Your task to perform on an android device: open app "Viber Messenger" (install if not already installed), go to login, and select forgot password Image 0: 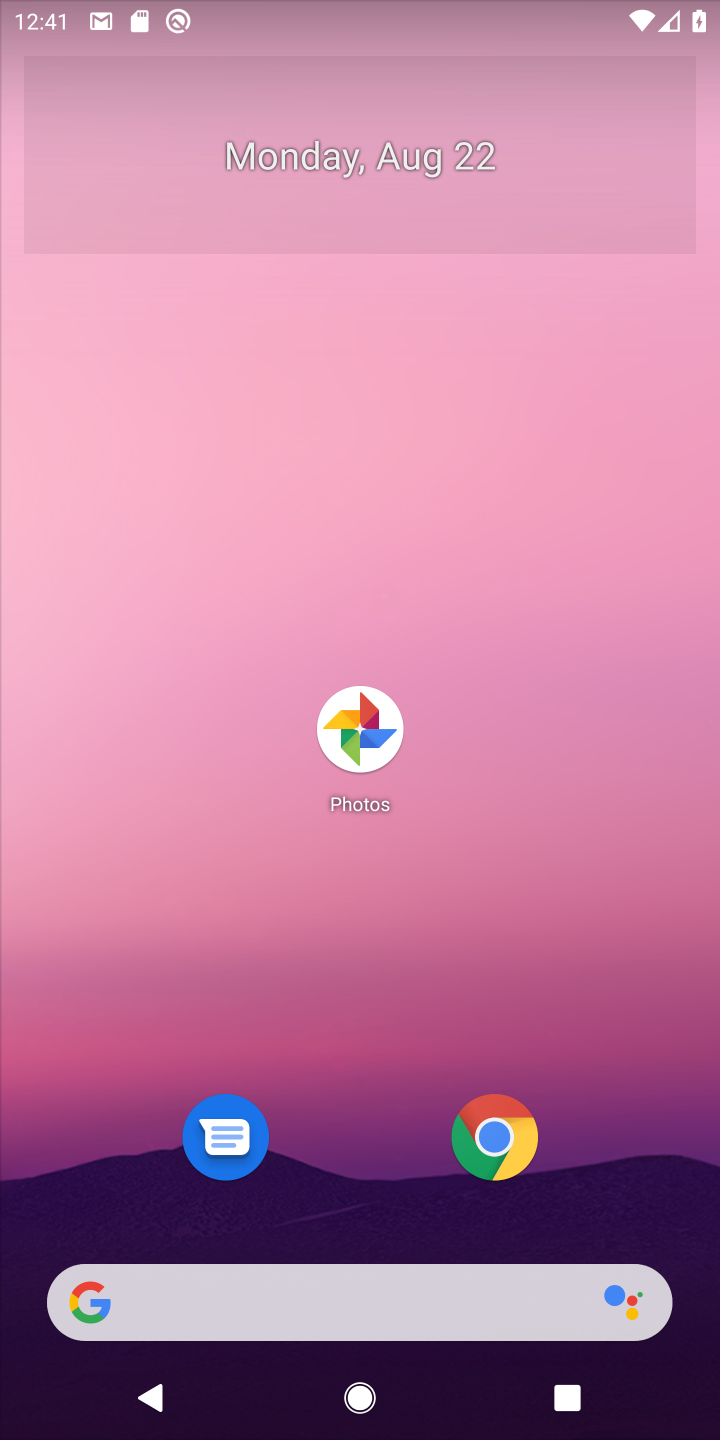
Step 0: drag from (377, 1277) to (461, 41)
Your task to perform on an android device: open app "Viber Messenger" (install if not already installed), go to login, and select forgot password Image 1: 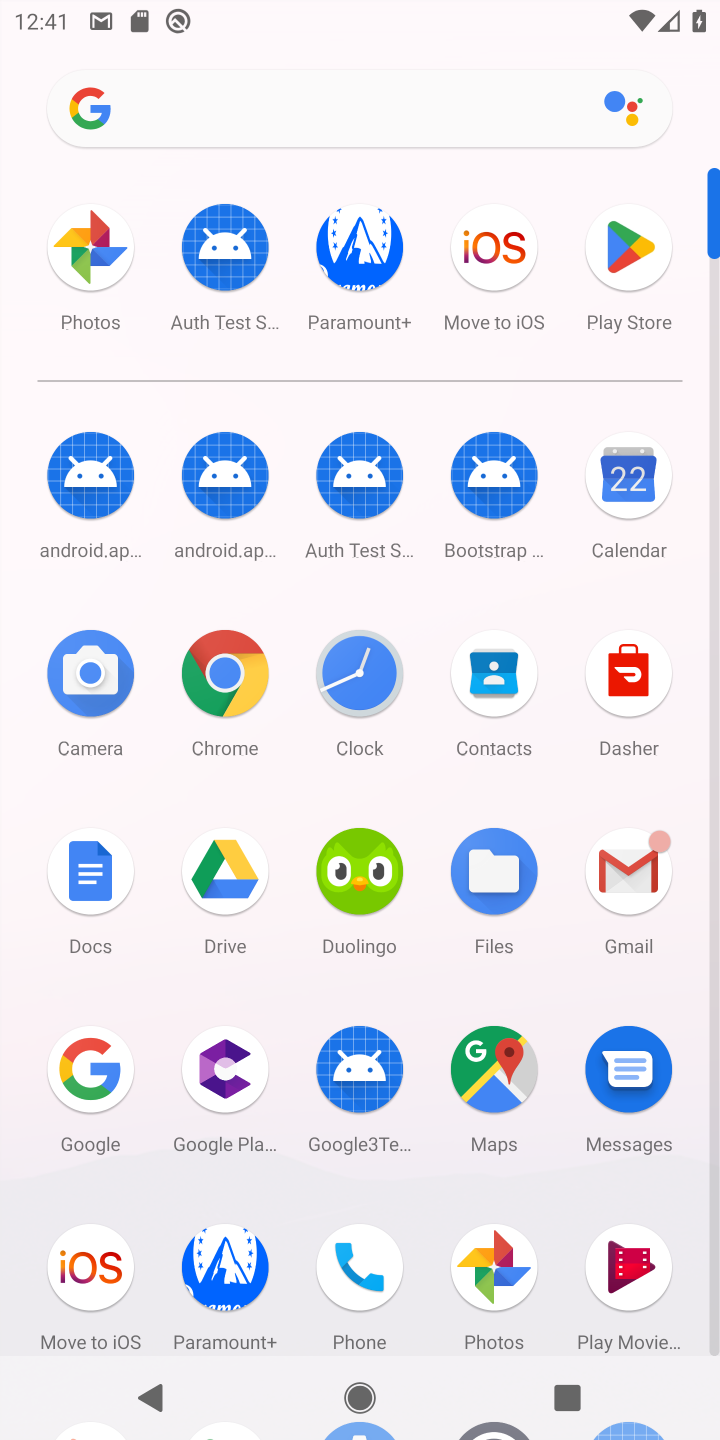
Step 1: drag from (435, 717) to (442, 209)
Your task to perform on an android device: open app "Viber Messenger" (install if not already installed), go to login, and select forgot password Image 2: 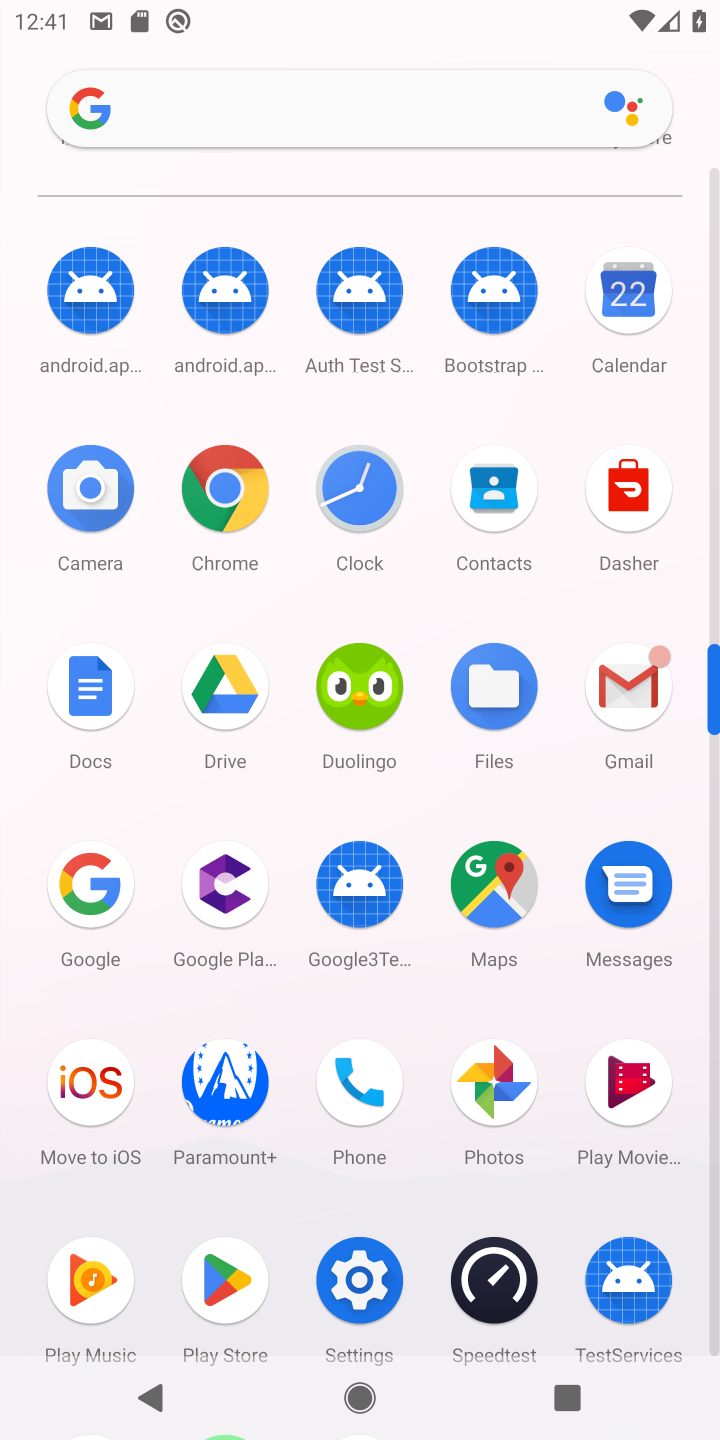
Step 2: click (227, 1282)
Your task to perform on an android device: open app "Viber Messenger" (install if not already installed), go to login, and select forgot password Image 3: 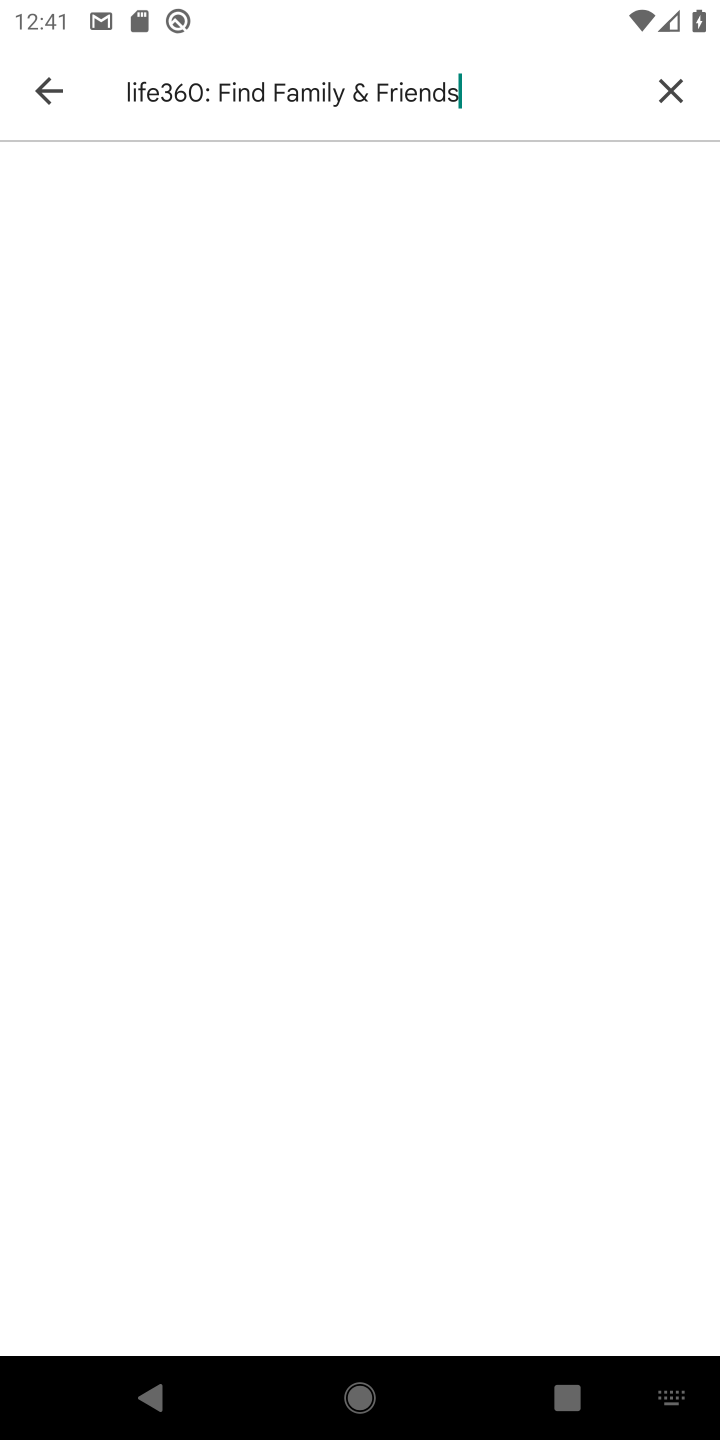
Step 3: click (675, 86)
Your task to perform on an android device: open app "Viber Messenger" (install if not already installed), go to login, and select forgot password Image 4: 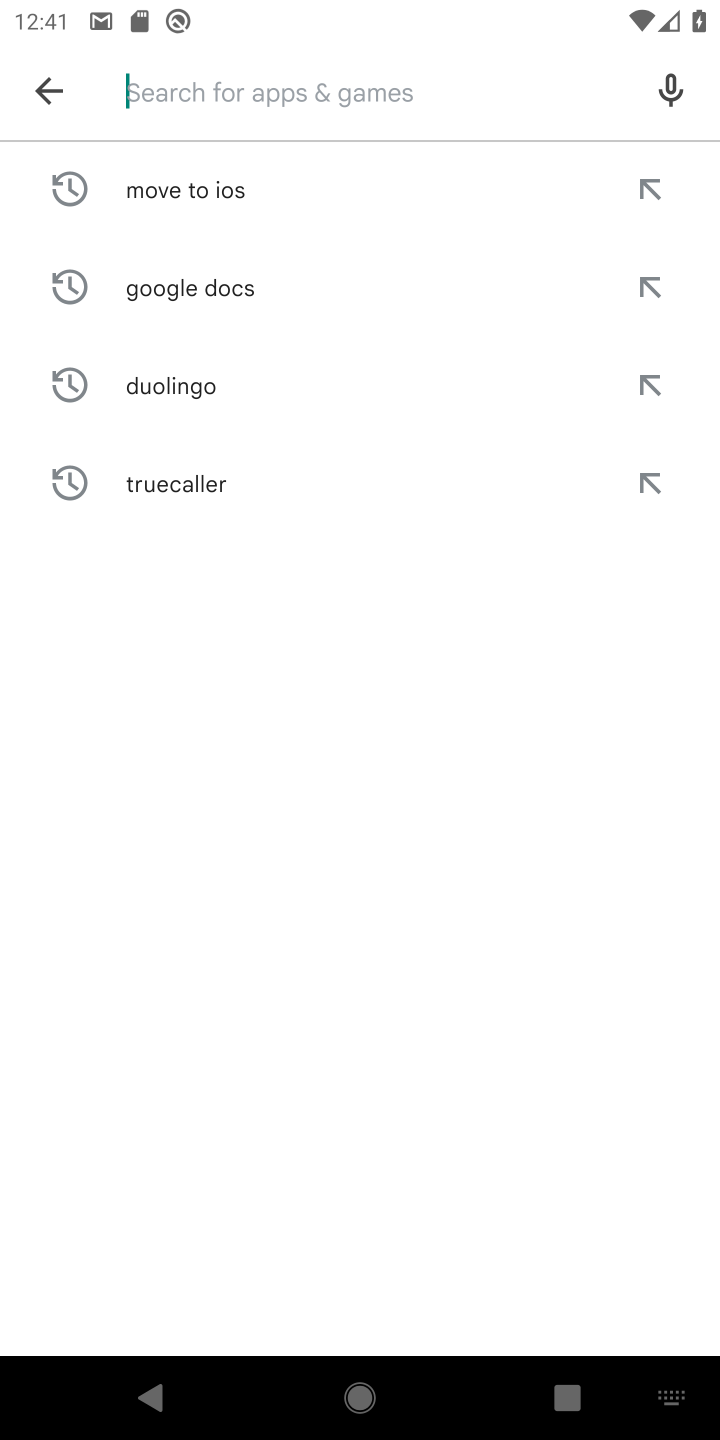
Step 4: type "Viber Messenger"
Your task to perform on an android device: open app "Viber Messenger" (install if not already installed), go to login, and select forgot password Image 5: 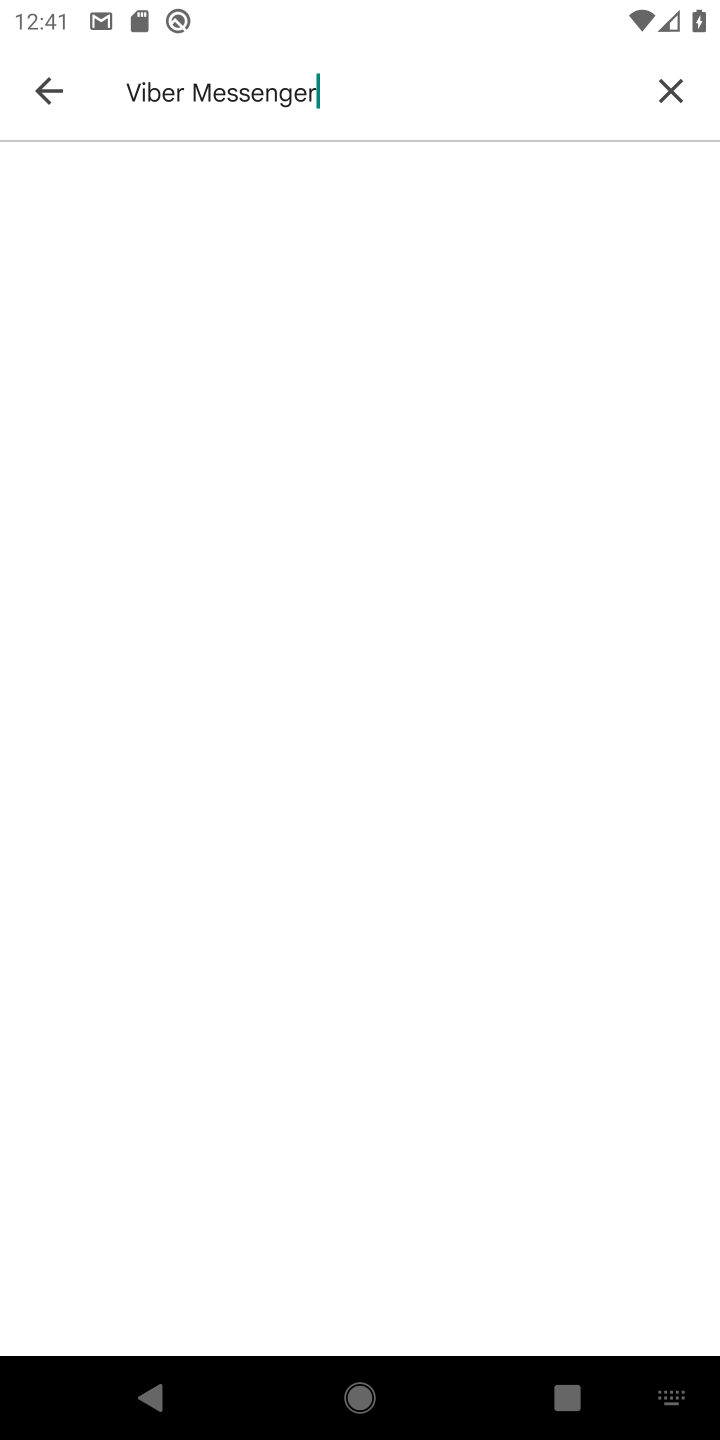
Step 5: task complete